Your task to perform on an android device: Turn off the flashlight Image 0: 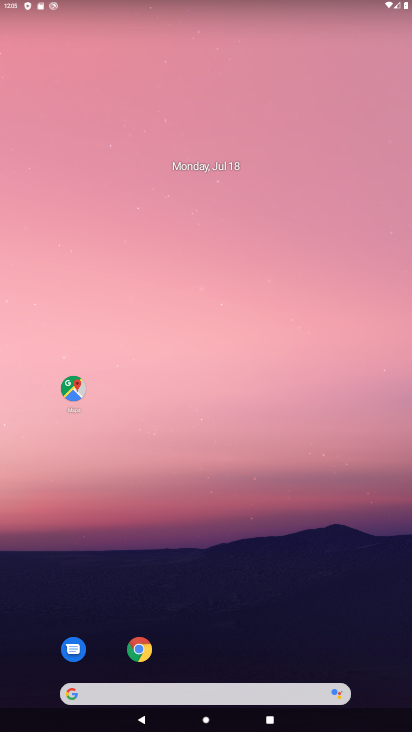
Step 0: drag from (177, 478) to (182, 44)
Your task to perform on an android device: Turn off the flashlight Image 1: 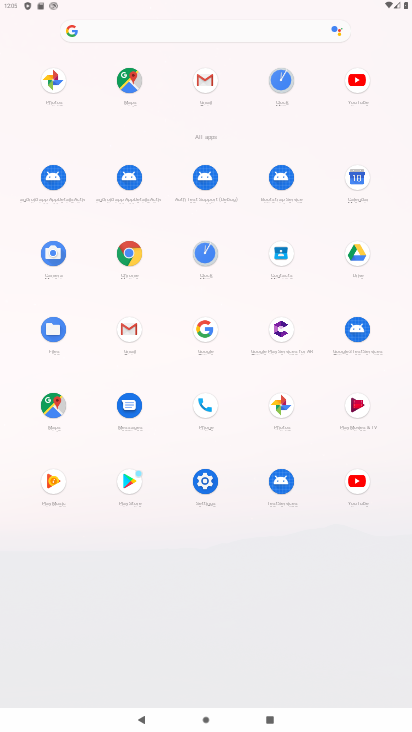
Step 1: task complete